Your task to perform on an android device: remove spam from my inbox in the gmail app Image 0: 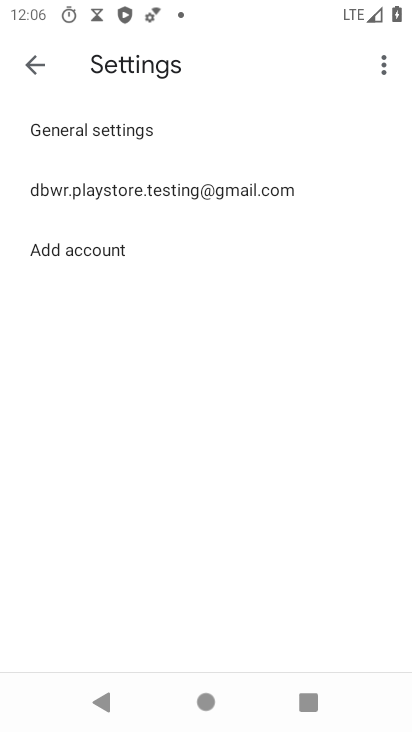
Step 0: press home button
Your task to perform on an android device: remove spam from my inbox in the gmail app Image 1: 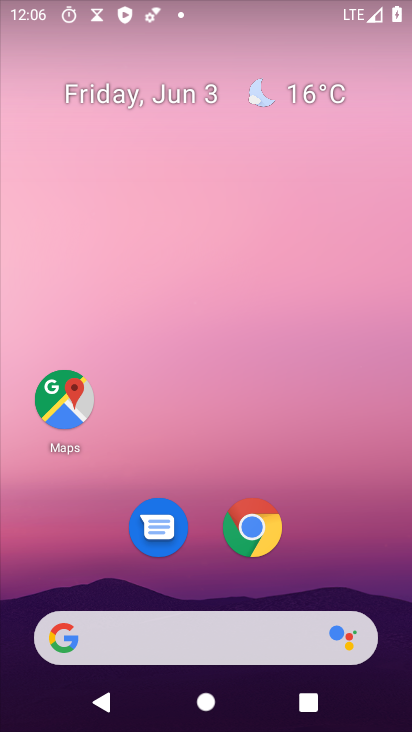
Step 1: drag from (223, 629) to (89, 10)
Your task to perform on an android device: remove spam from my inbox in the gmail app Image 2: 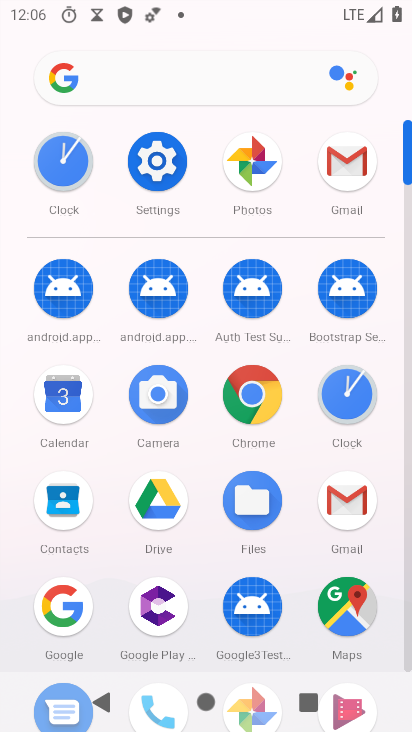
Step 2: click (335, 509)
Your task to perform on an android device: remove spam from my inbox in the gmail app Image 3: 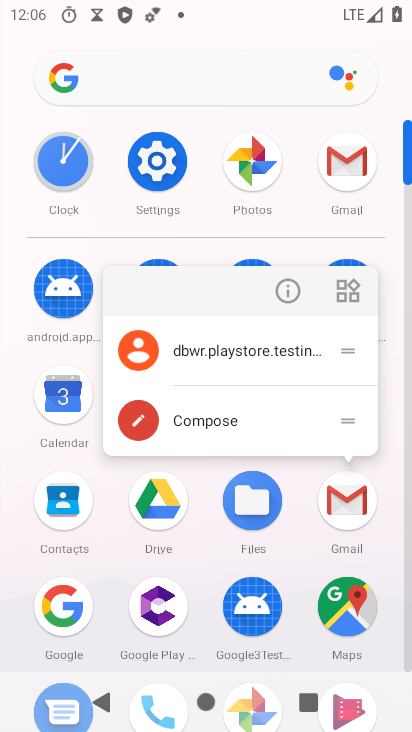
Step 3: click (344, 500)
Your task to perform on an android device: remove spam from my inbox in the gmail app Image 4: 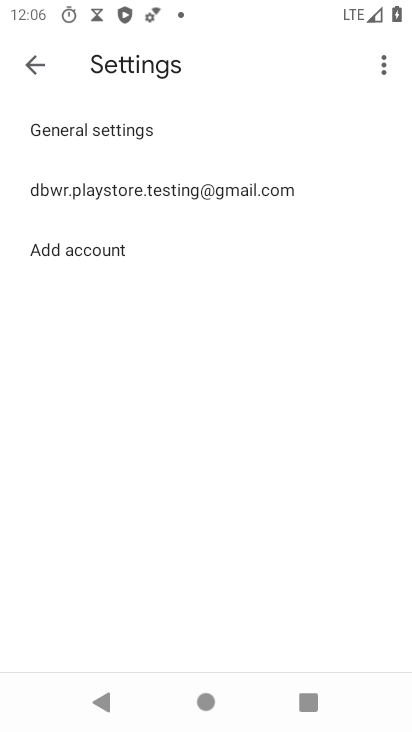
Step 4: click (40, 68)
Your task to perform on an android device: remove spam from my inbox in the gmail app Image 5: 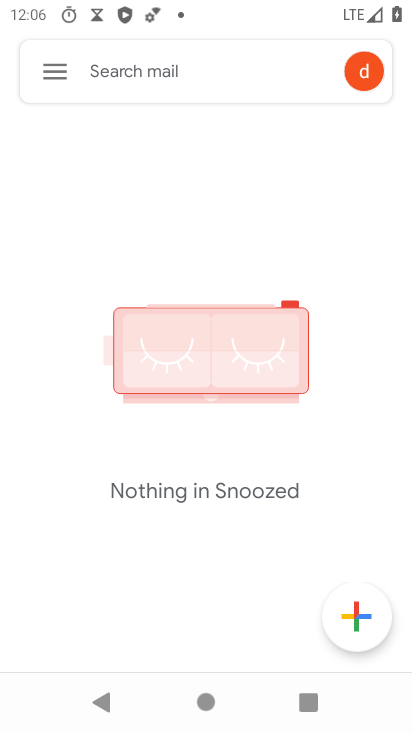
Step 5: click (40, 68)
Your task to perform on an android device: remove spam from my inbox in the gmail app Image 6: 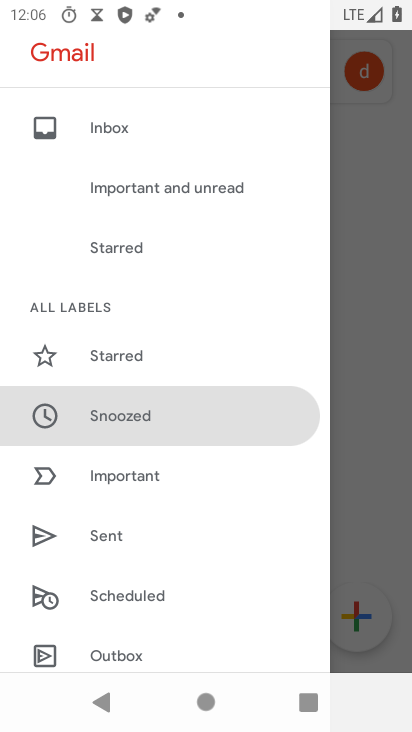
Step 6: drag from (138, 553) to (112, 191)
Your task to perform on an android device: remove spam from my inbox in the gmail app Image 7: 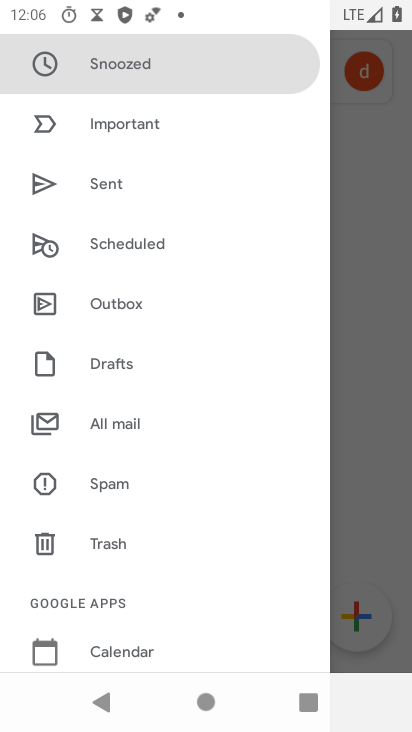
Step 7: click (123, 494)
Your task to perform on an android device: remove spam from my inbox in the gmail app Image 8: 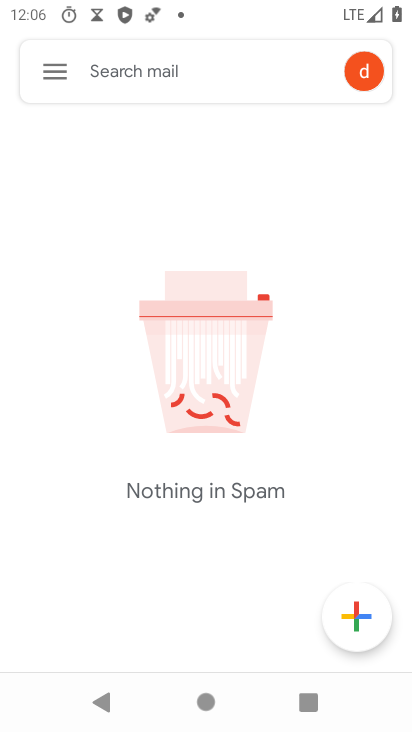
Step 8: task complete